Your task to perform on an android device: open app "Nova Launcher" Image 0: 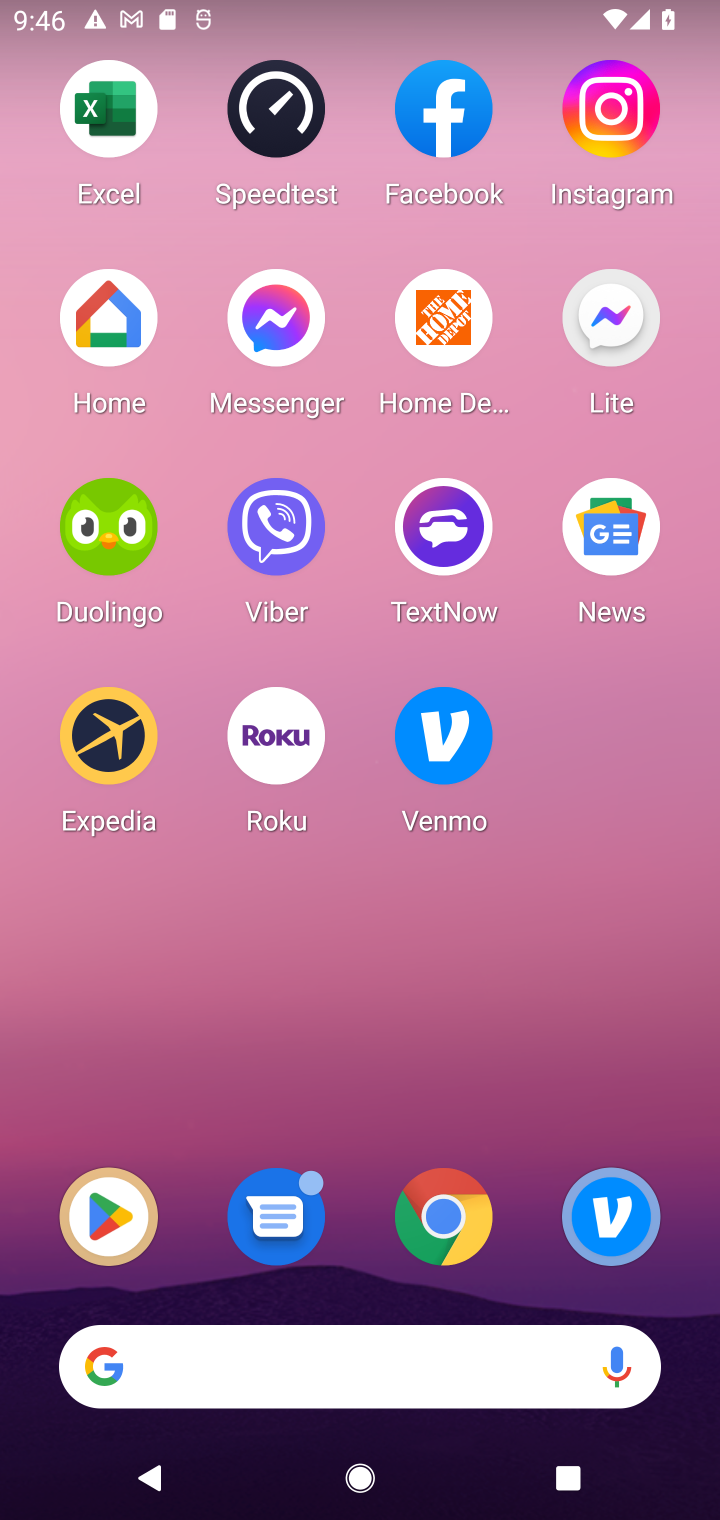
Step 0: click (95, 1219)
Your task to perform on an android device: open app "Nova Launcher" Image 1: 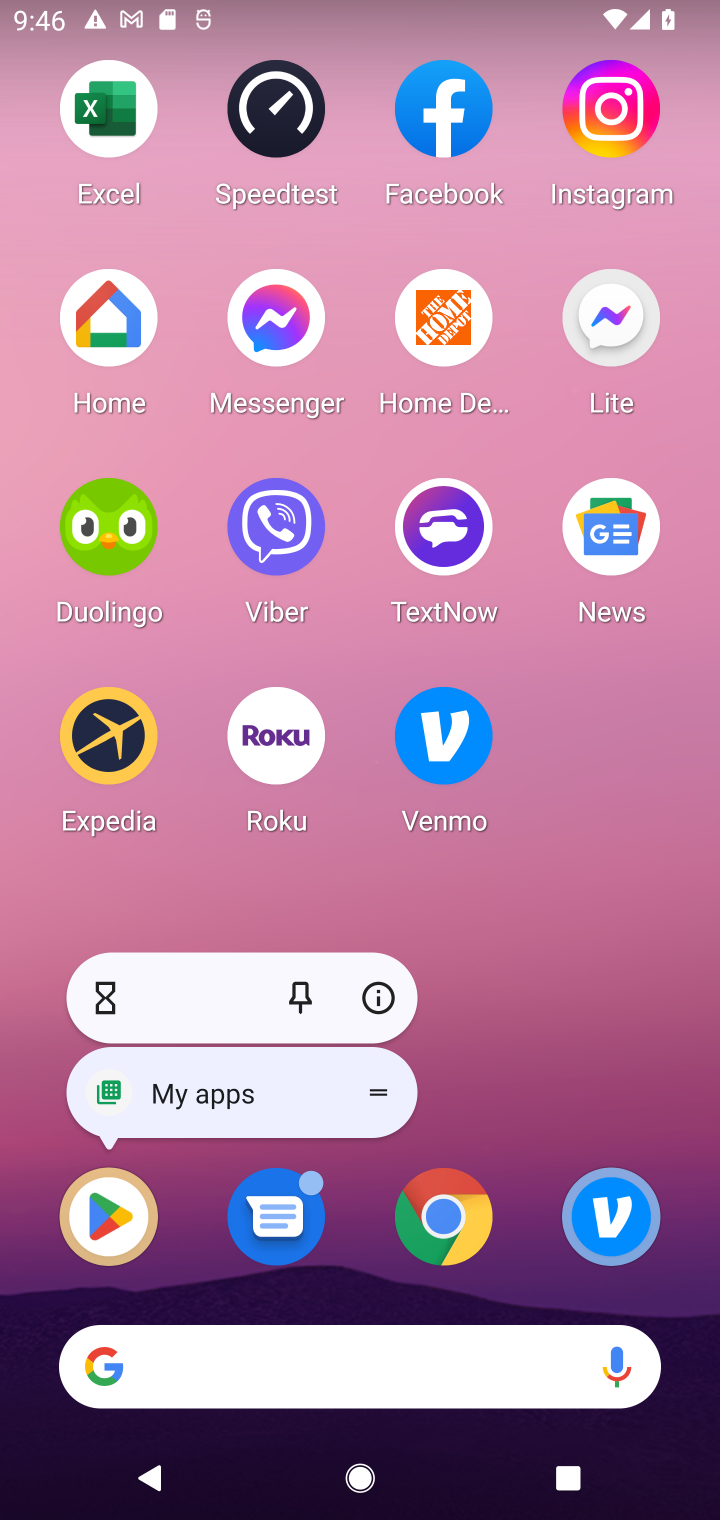
Step 1: click (95, 1219)
Your task to perform on an android device: open app "Nova Launcher" Image 2: 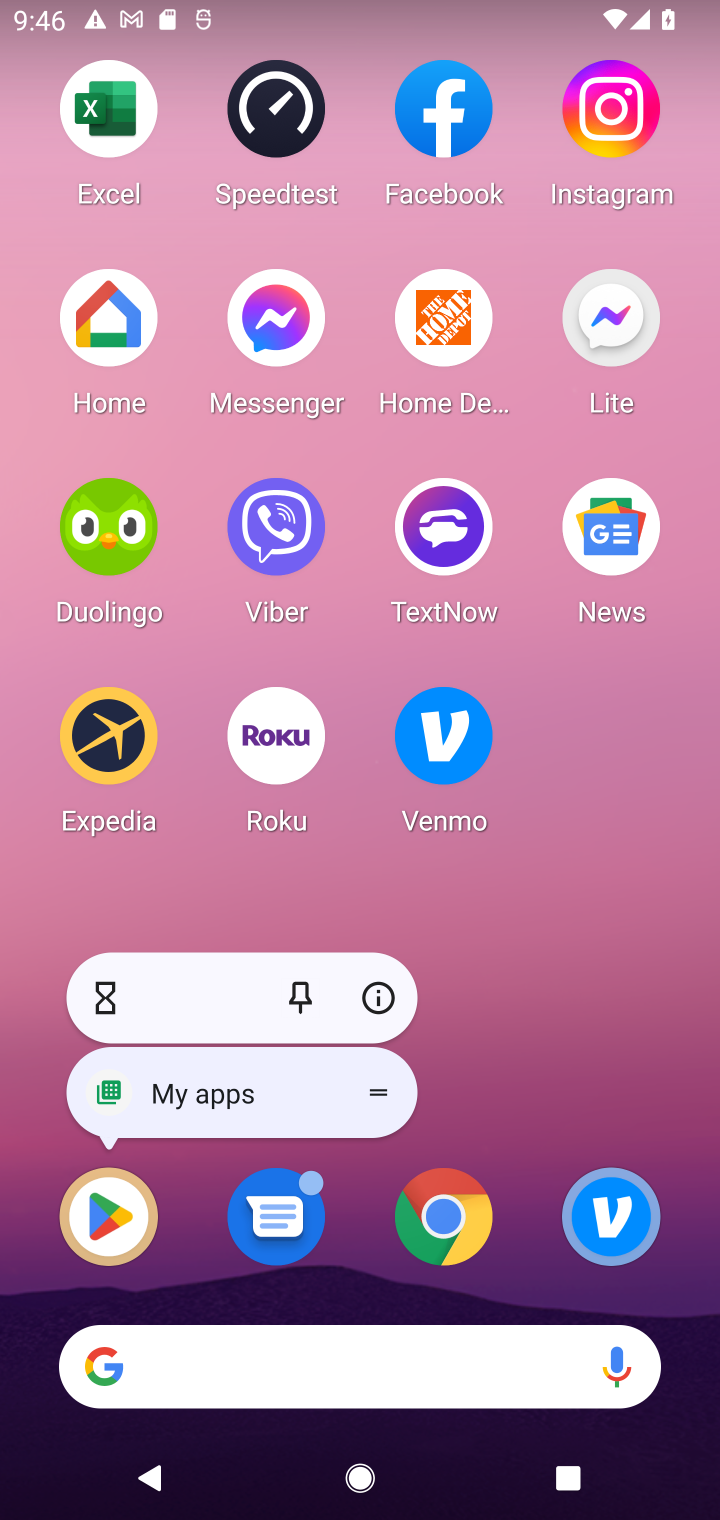
Step 2: click (95, 1219)
Your task to perform on an android device: open app "Nova Launcher" Image 3: 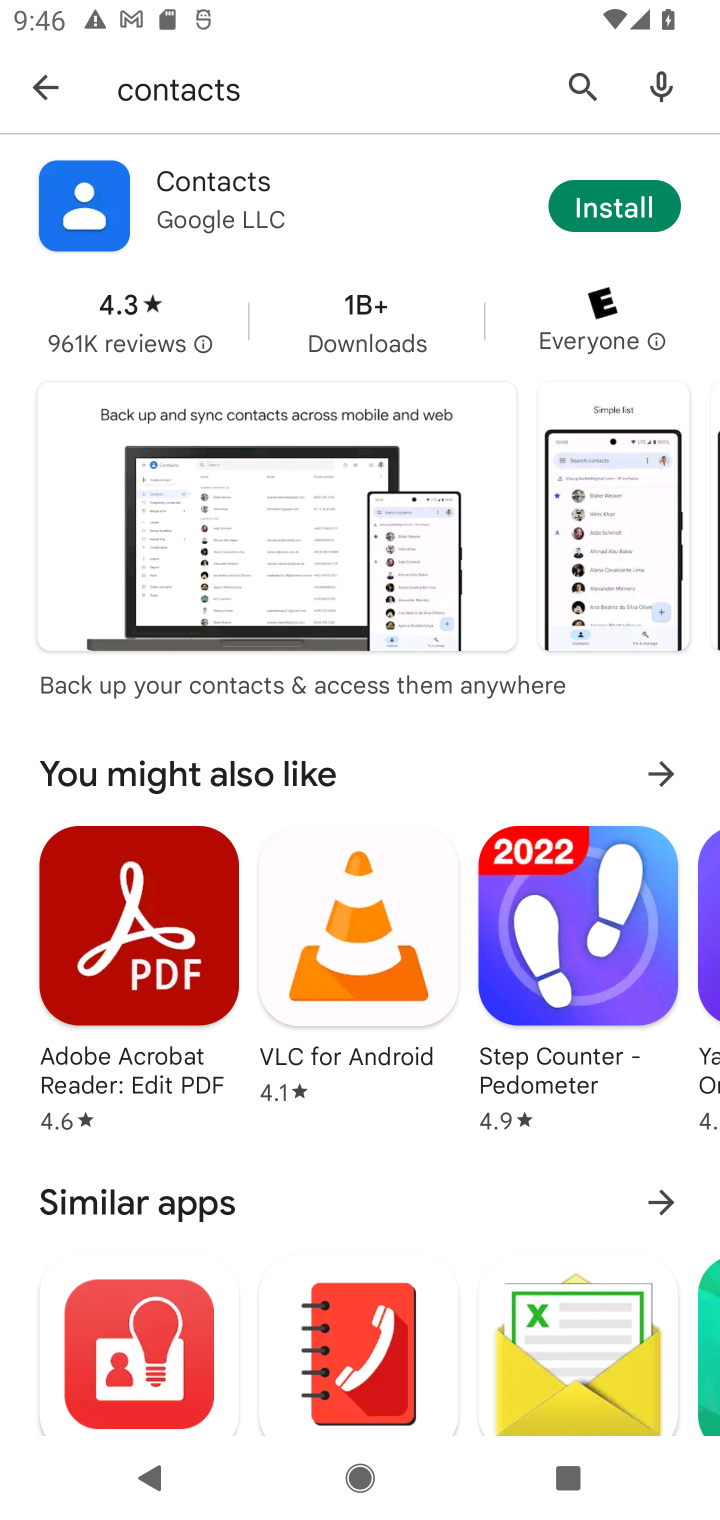
Step 3: click (584, 90)
Your task to perform on an android device: open app "Nova Launcher" Image 4: 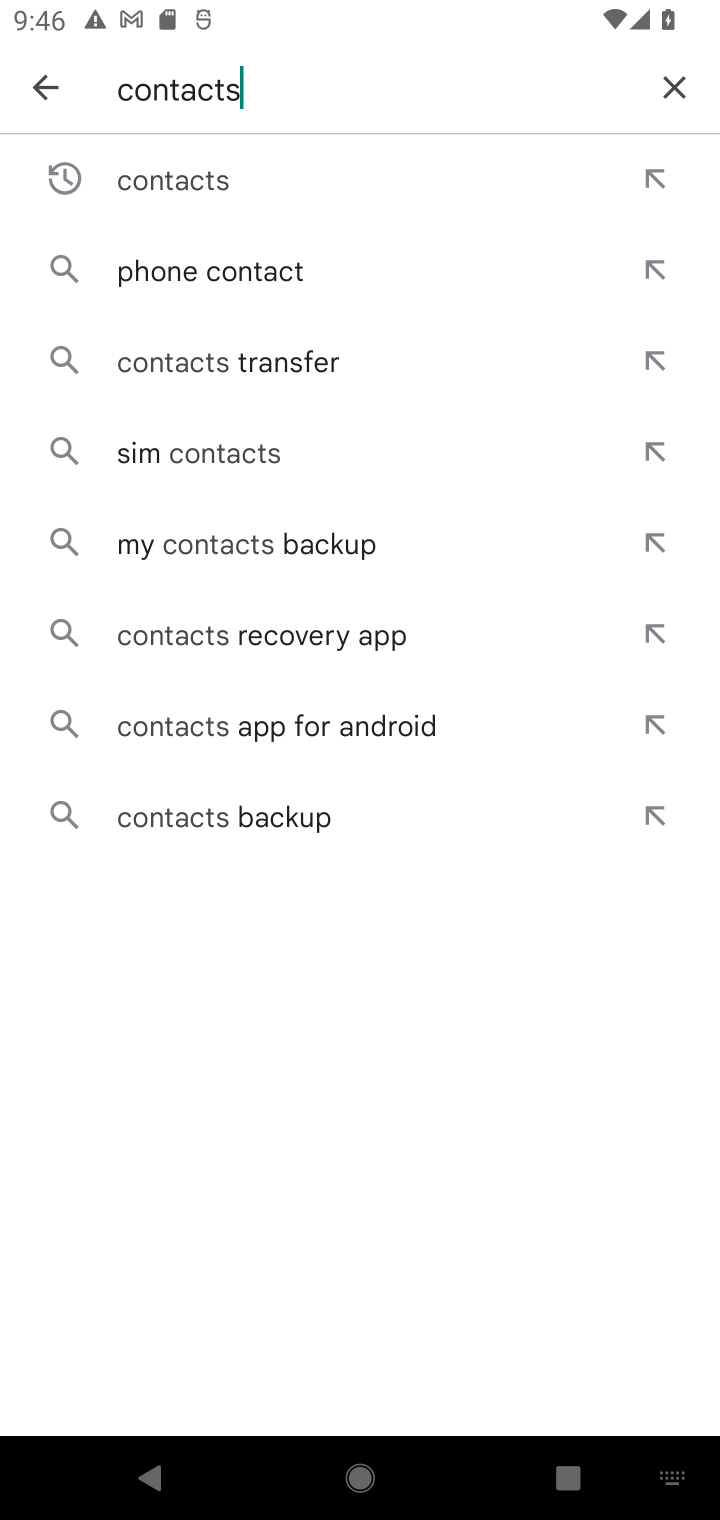
Step 4: click (669, 87)
Your task to perform on an android device: open app "Nova Launcher" Image 5: 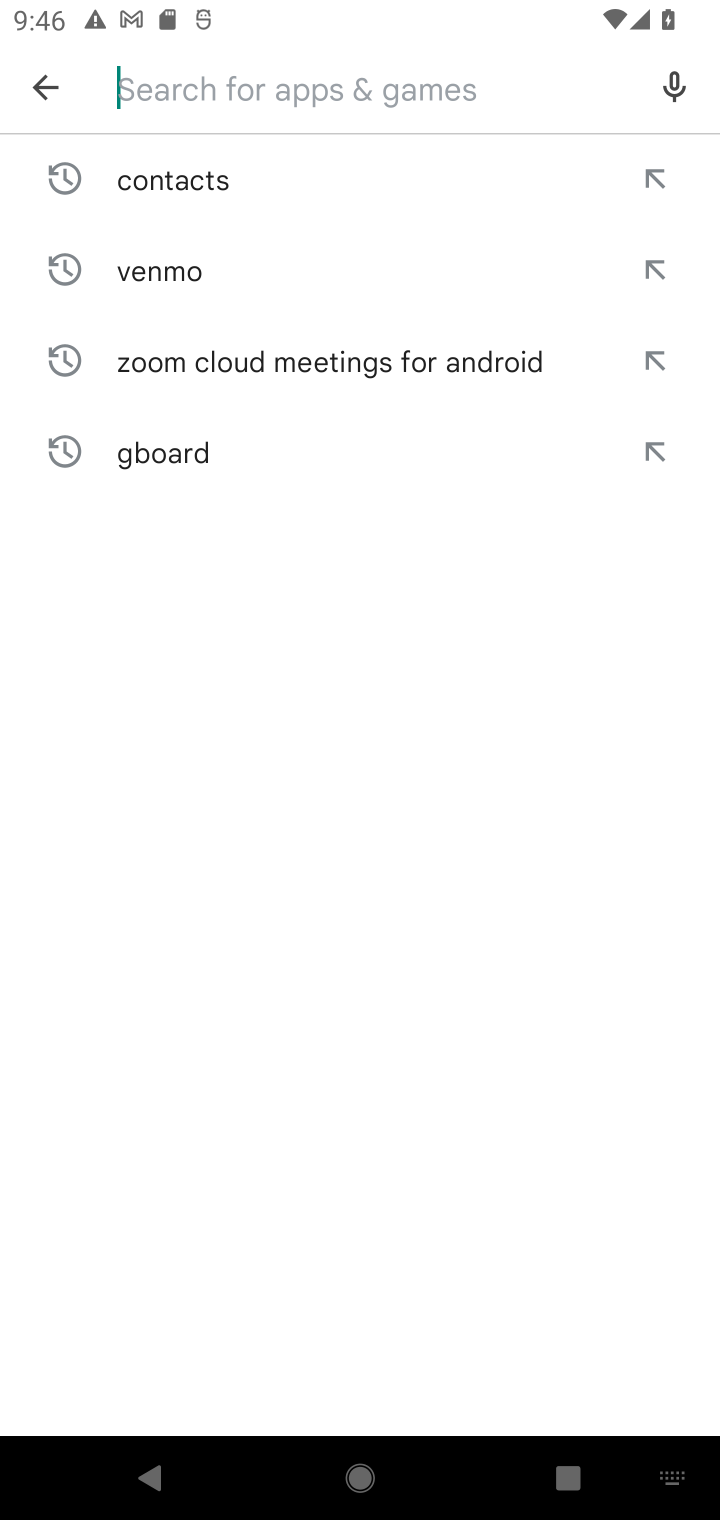
Step 5: type "Nova Launcher"
Your task to perform on an android device: open app "Nova Launcher" Image 6: 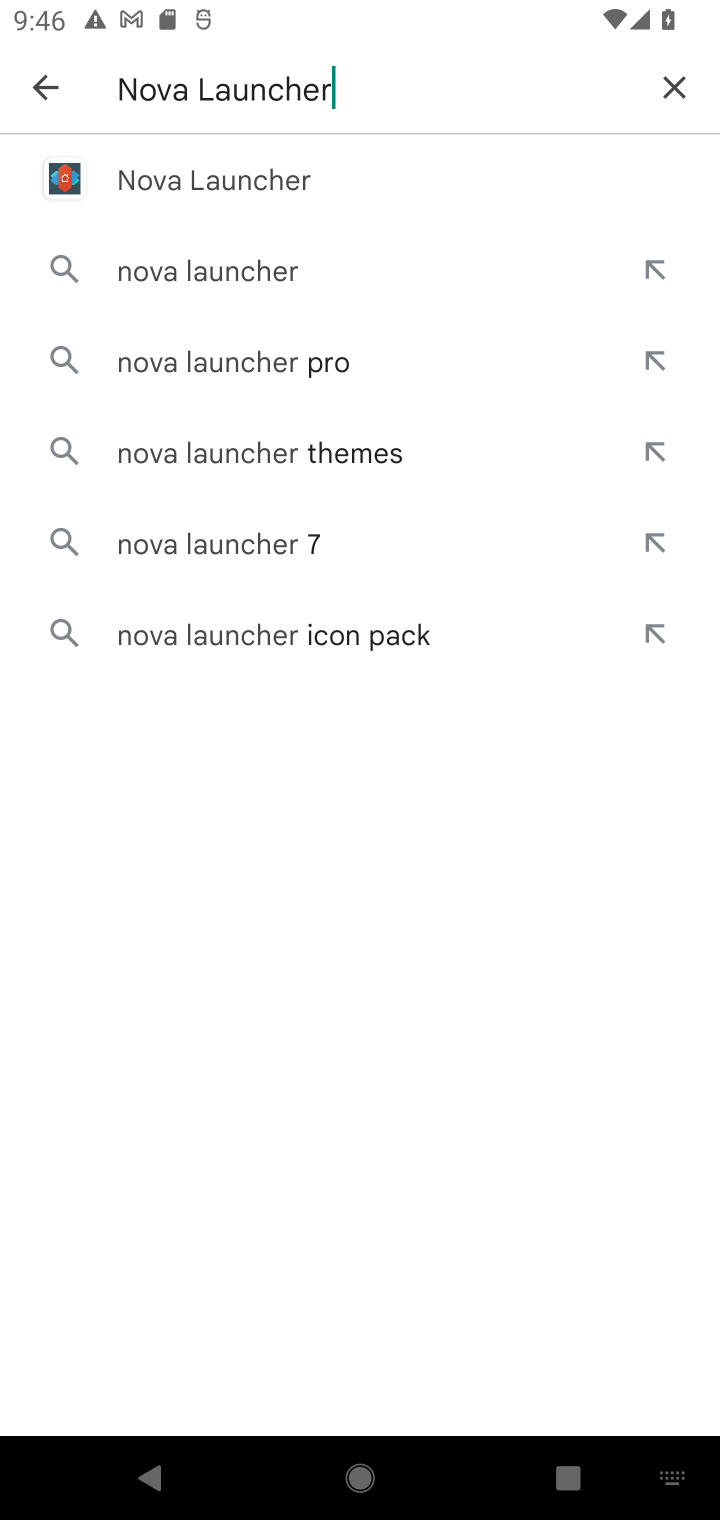
Step 6: click (159, 194)
Your task to perform on an android device: open app "Nova Launcher" Image 7: 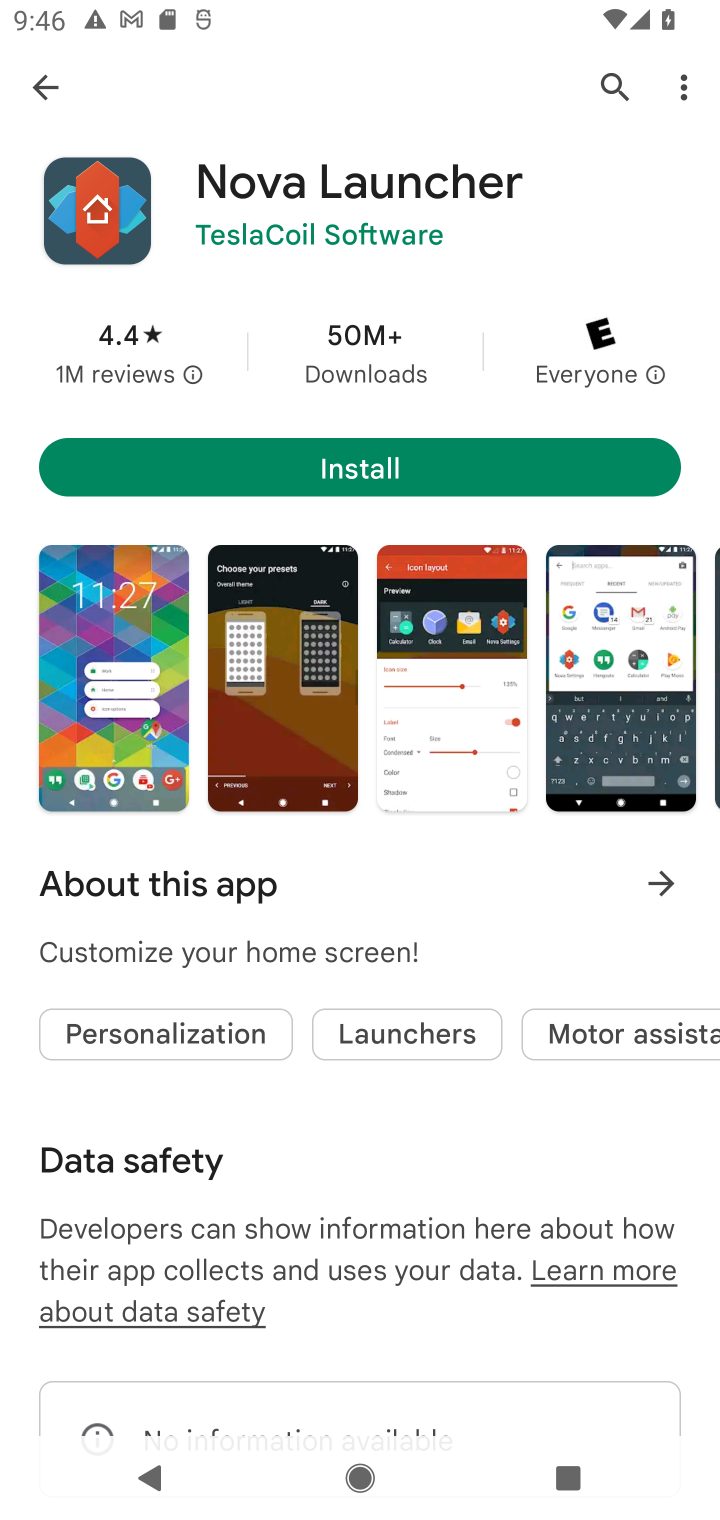
Step 7: task complete